Your task to perform on an android device: Search for sushi restaurants on Maps Image 0: 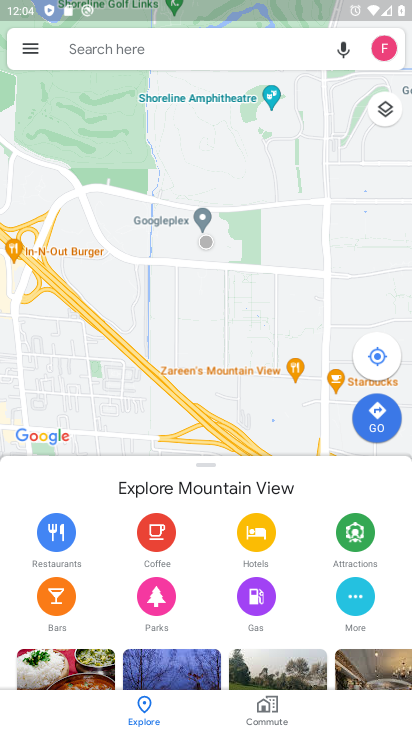
Step 0: press home button
Your task to perform on an android device: Search for sushi restaurants on Maps Image 1: 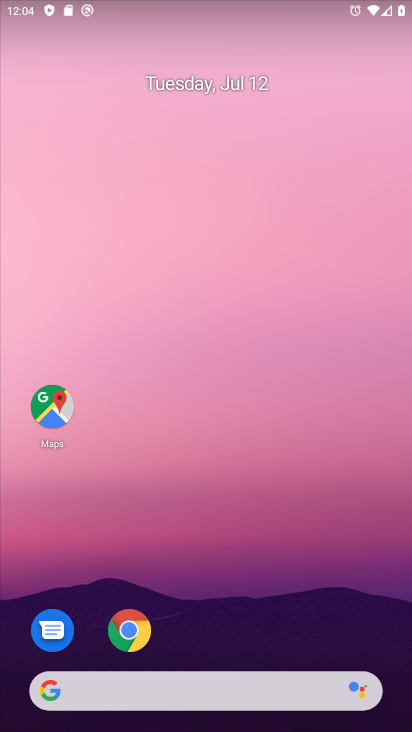
Step 1: click (50, 408)
Your task to perform on an android device: Search for sushi restaurants on Maps Image 2: 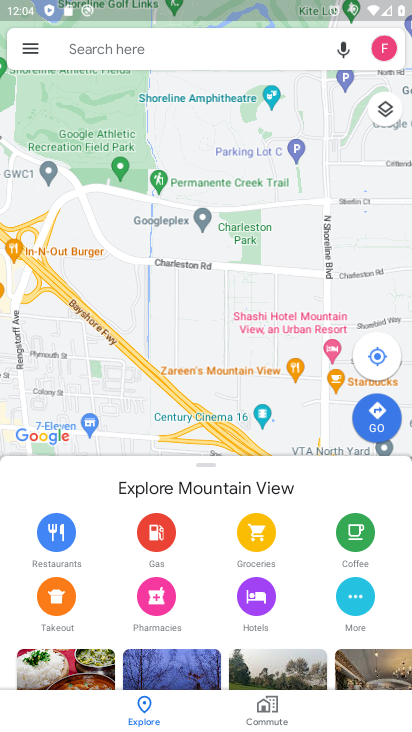
Step 2: click (193, 46)
Your task to perform on an android device: Search for sushi restaurants on Maps Image 3: 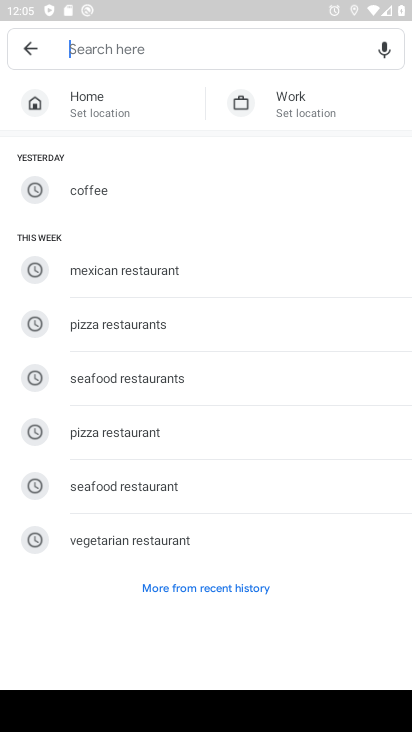
Step 3: type "sushi restaurants"
Your task to perform on an android device: Search for sushi restaurants on Maps Image 4: 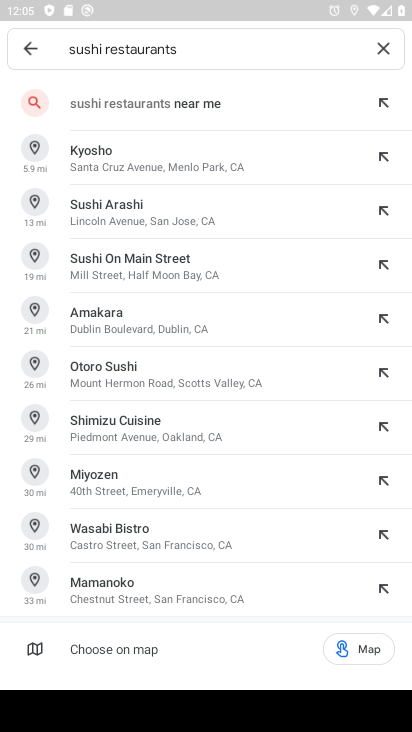
Step 4: click (117, 114)
Your task to perform on an android device: Search for sushi restaurants on Maps Image 5: 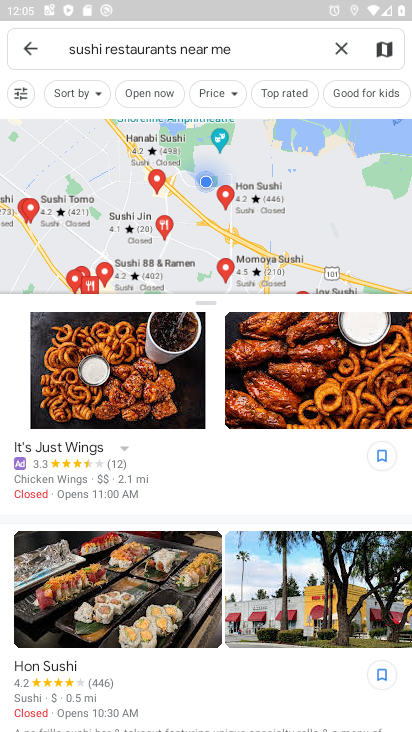
Step 5: task complete